Your task to perform on an android device: Open Amazon Image 0: 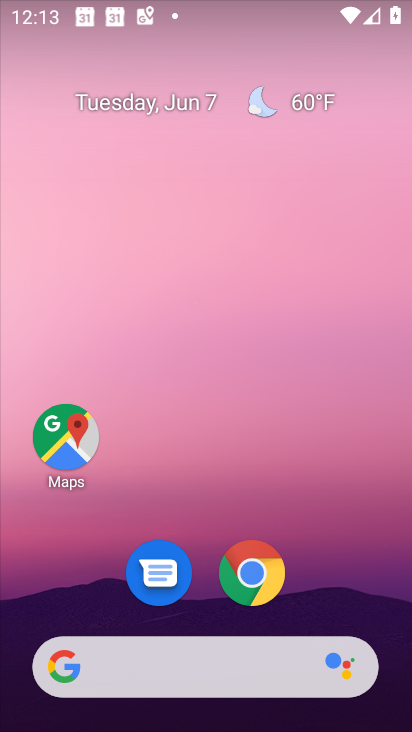
Step 0: click (264, 585)
Your task to perform on an android device: Open Amazon Image 1: 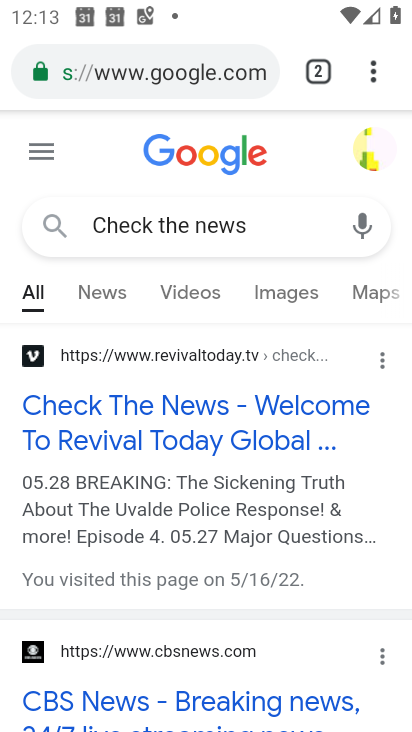
Step 1: drag from (384, 64) to (149, 129)
Your task to perform on an android device: Open Amazon Image 2: 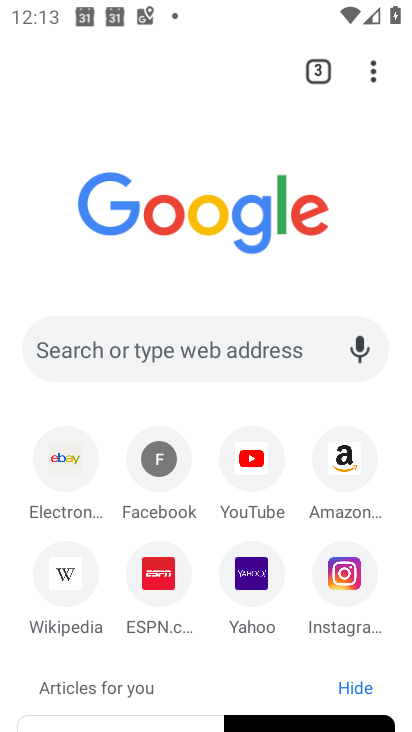
Step 2: click (359, 458)
Your task to perform on an android device: Open Amazon Image 3: 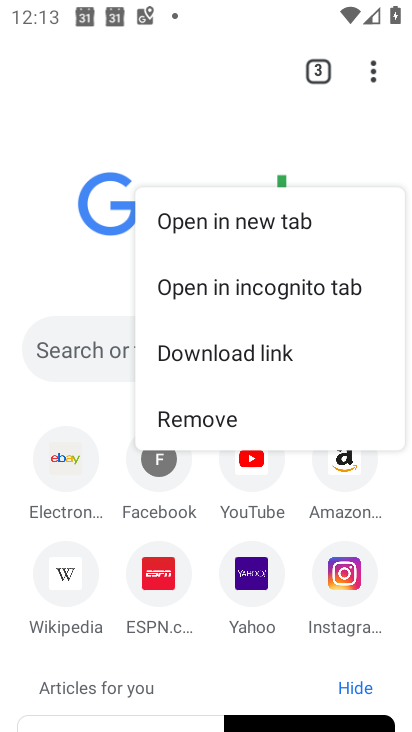
Step 3: click (352, 465)
Your task to perform on an android device: Open Amazon Image 4: 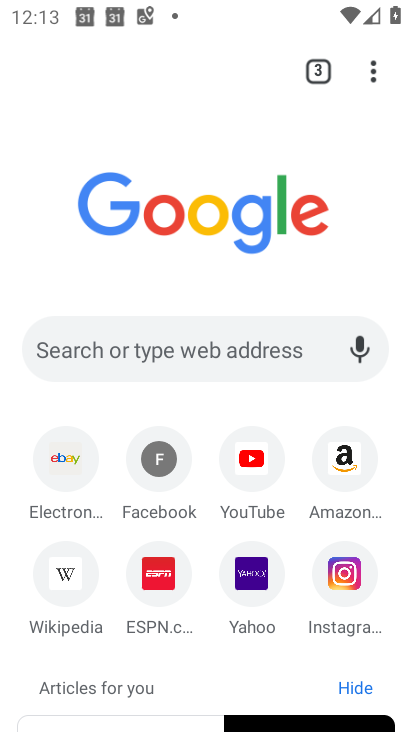
Step 4: click (352, 465)
Your task to perform on an android device: Open Amazon Image 5: 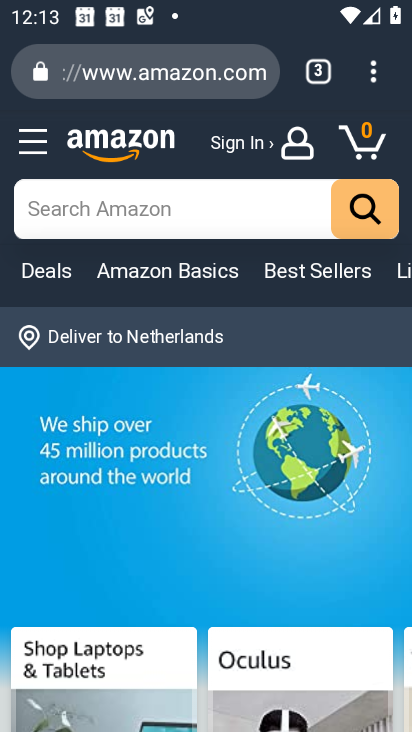
Step 5: task complete